Your task to perform on an android device: move a message to another label in the gmail app Image 0: 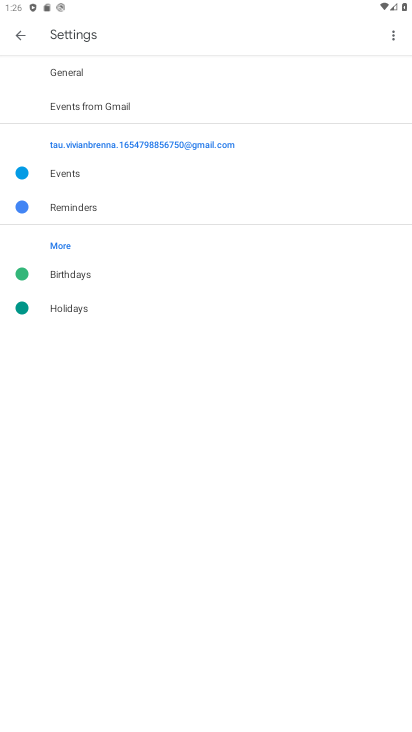
Step 0: press home button
Your task to perform on an android device: move a message to another label in the gmail app Image 1: 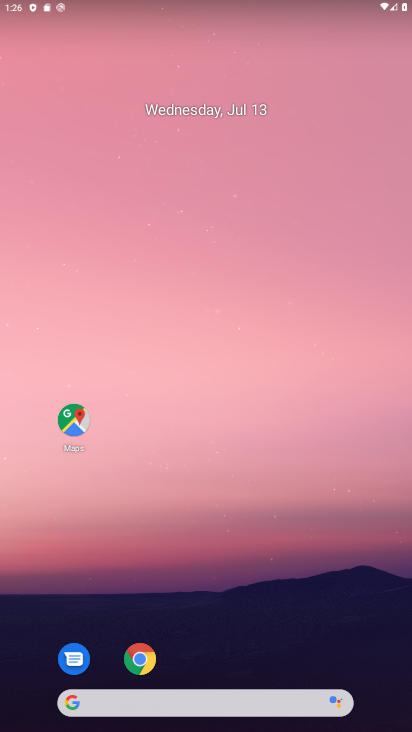
Step 1: drag from (392, 689) to (294, 215)
Your task to perform on an android device: move a message to another label in the gmail app Image 2: 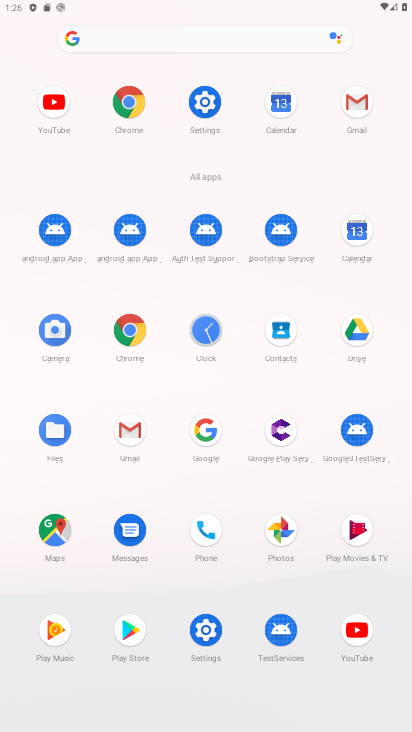
Step 2: click (128, 432)
Your task to perform on an android device: move a message to another label in the gmail app Image 3: 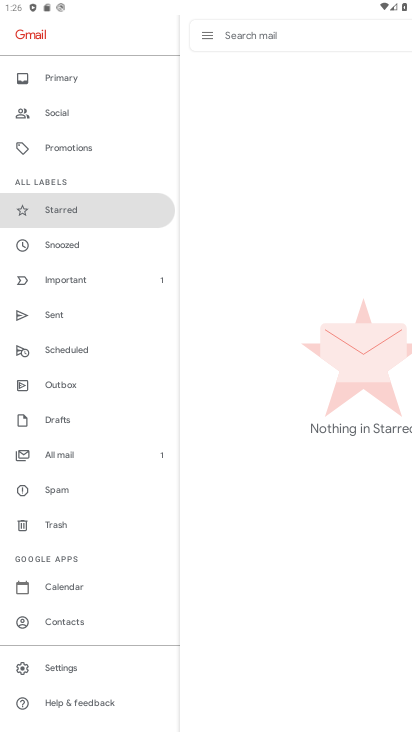
Step 3: click (52, 455)
Your task to perform on an android device: move a message to another label in the gmail app Image 4: 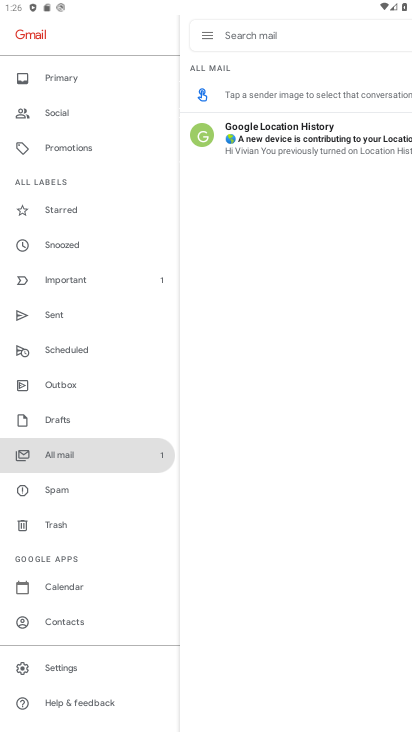
Step 4: click (322, 135)
Your task to perform on an android device: move a message to another label in the gmail app Image 5: 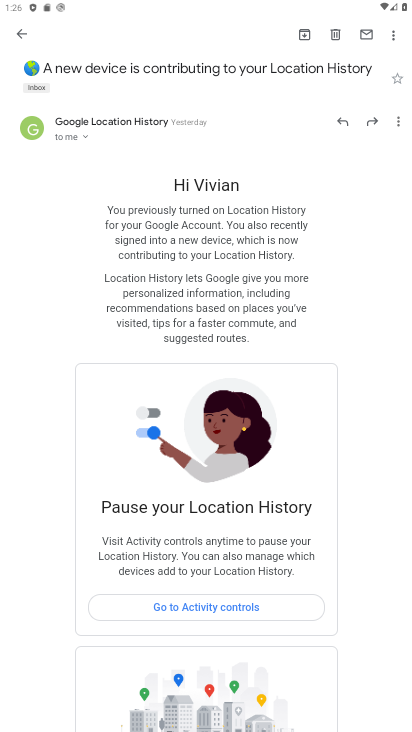
Step 5: click (392, 39)
Your task to perform on an android device: move a message to another label in the gmail app Image 6: 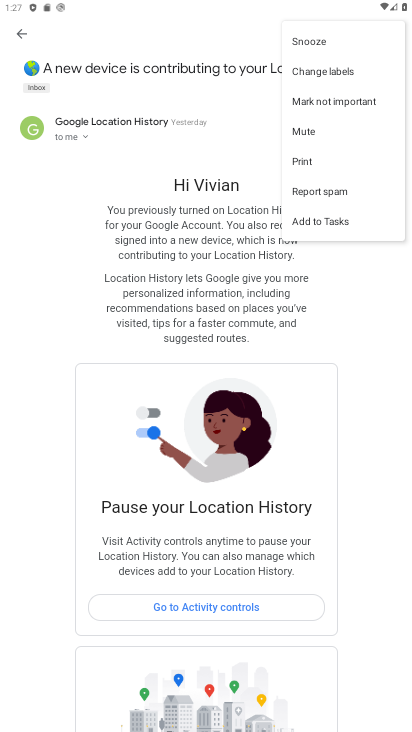
Step 6: click (316, 74)
Your task to perform on an android device: move a message to another label in the gmail app Image 7: 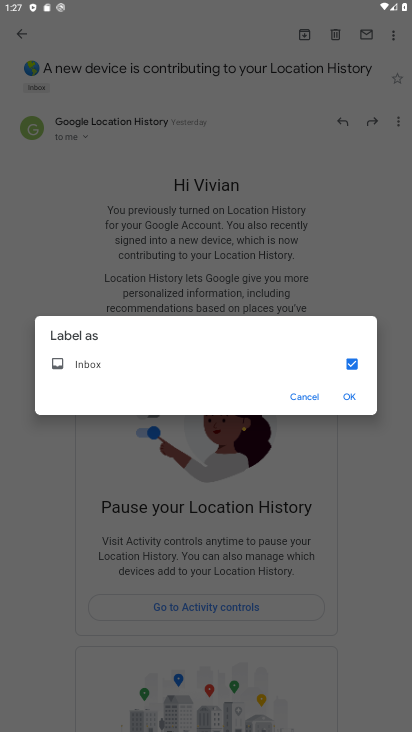
Step 7: click (344, 395)
Your task to perform on an android device: move a message to another label in the gmail app Image 8: 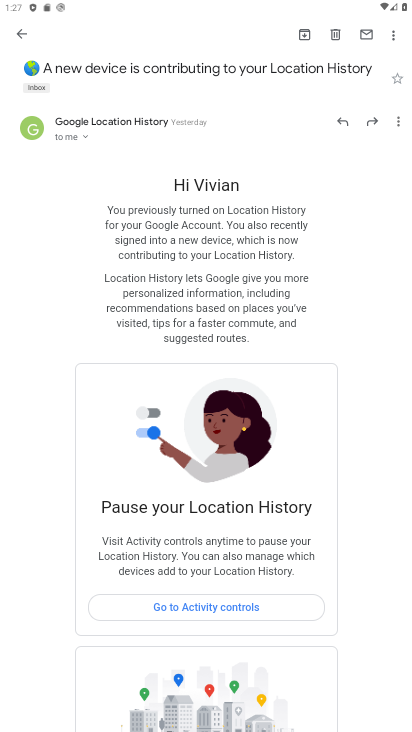
Step 8: task complete